Your task to perform on an android device: make emails show in primary in the gmail app Image 0: 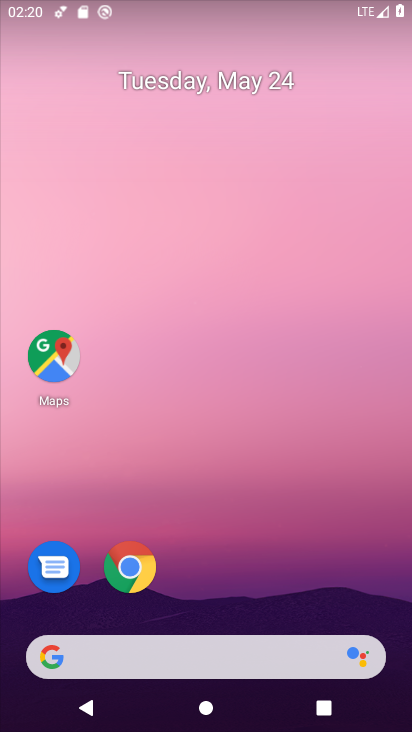
Step 0: drag from (197, 605) to (289, 7)
Your task to perform on an android device: make emails show in primary in the gmail app Image 1: 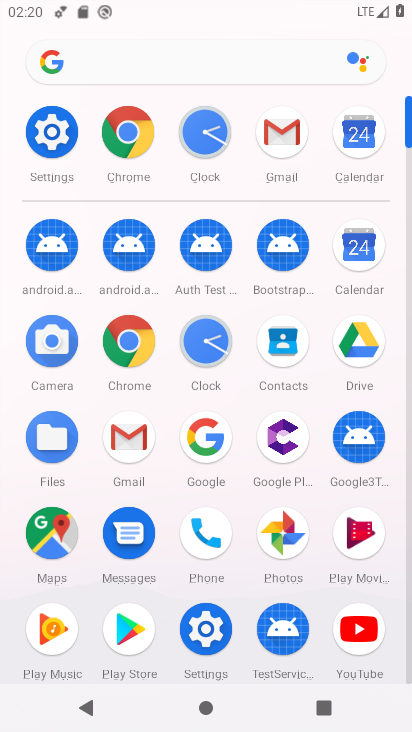
Step 1: click (134, 451)
Your task to perform on an android device: make emails show in primary in the gmail app Image 2: 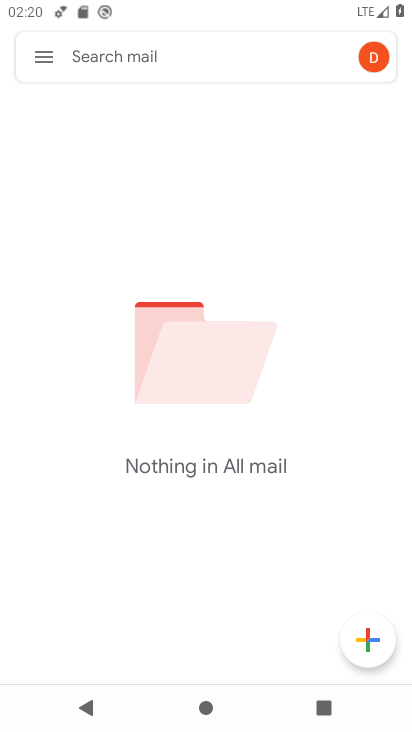
Step 2: click (48, 65)
Your task to perform on an android device: make emails show in primary in the gmail app Image 3: 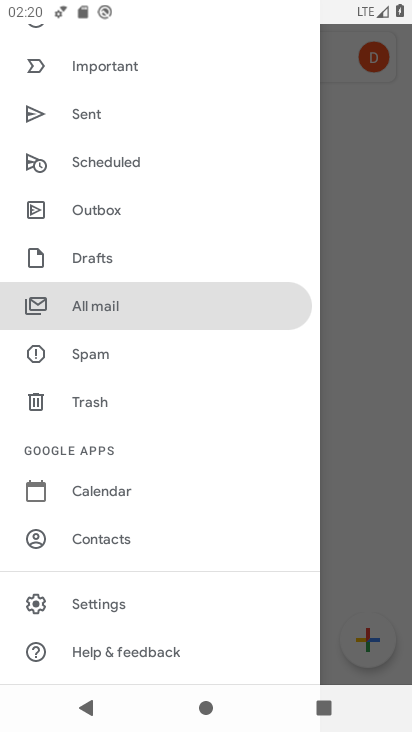
Step 3: click (87, 594)
Your task to perform on an android device: make emails show in primary in the gmail app Image 4: 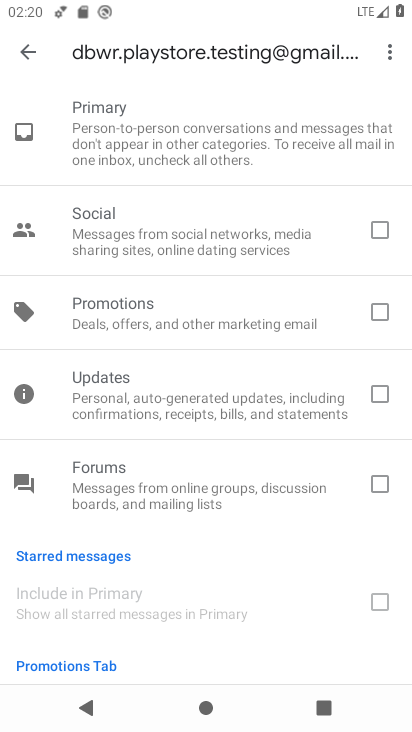
Step 4: click (30, 55)
Your task to perform on an android device: make emails show in primary in the gmail app Image 5: 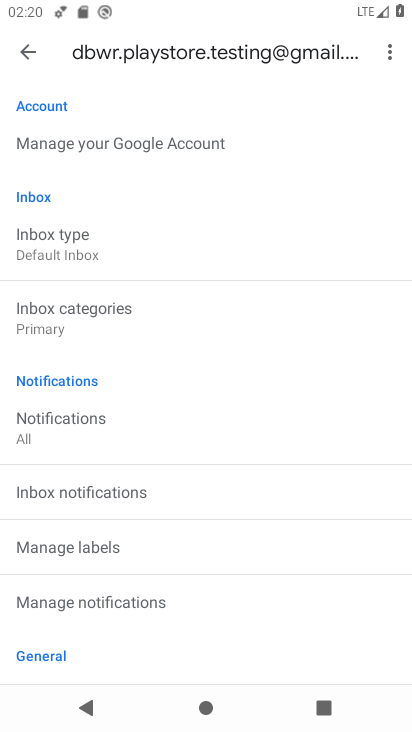
Step 5: task complete